Your task to perform on an android device: Do I have any events tomorrow? Image 0: 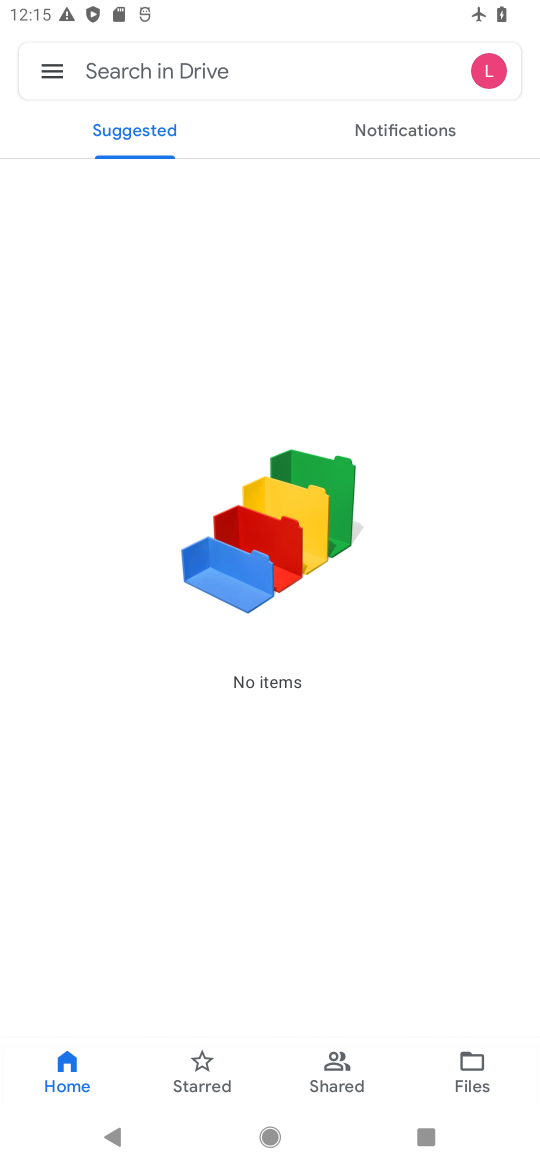
Step 0: press home button
Your task to perform on an android device: Do I have any events tomorrow? Image 1: 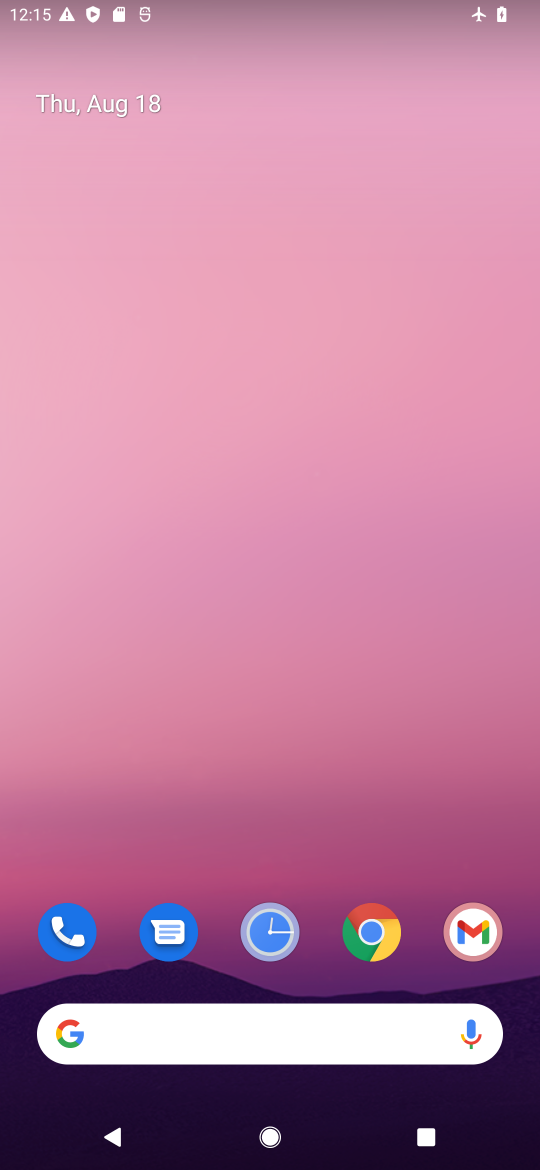
Step 1: drag from (280, 814) to (201, 236)
Your task to perform on an android device: Do I have any events tomorrow? Image 2: 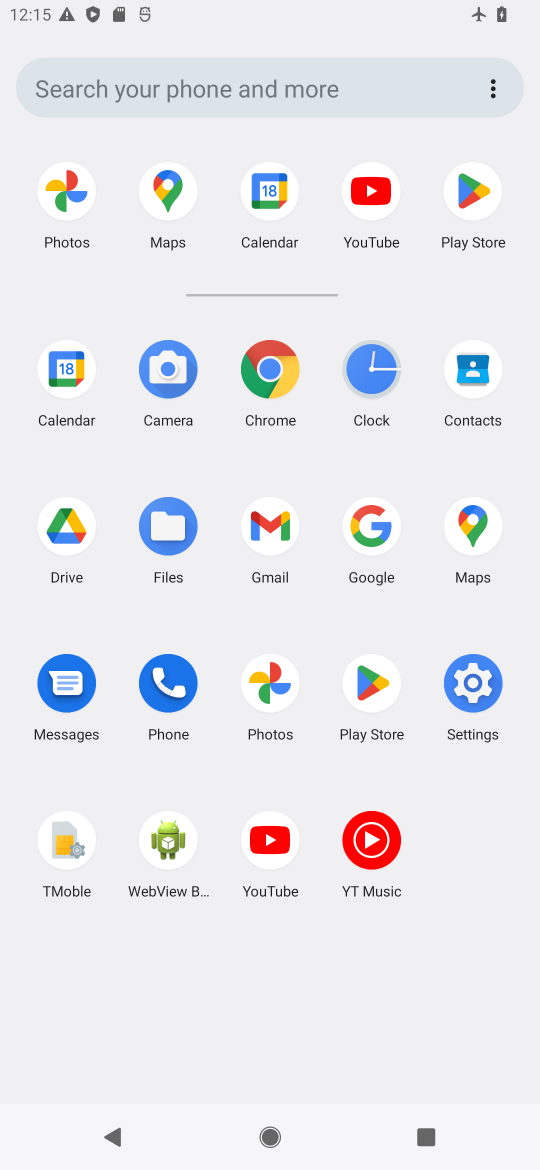
Step 2: click (66, 374)
Your task to perform on an android device: Do I have any events tomorrow? Image 3: 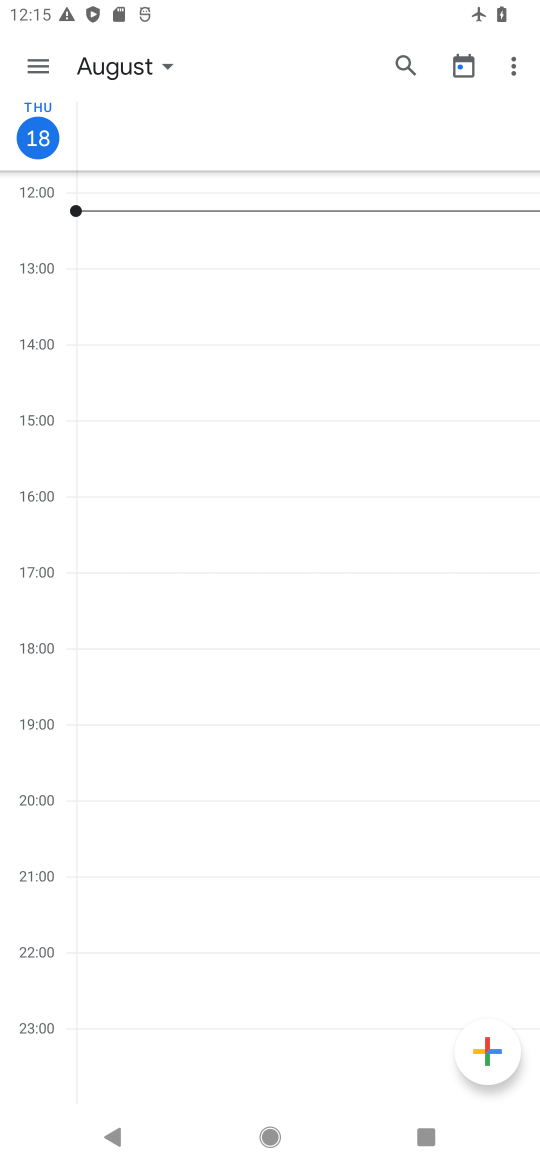
Step 3: click (170, 59)
Your task to perform on an android device: Do I have any events tomorrow? Image 4: 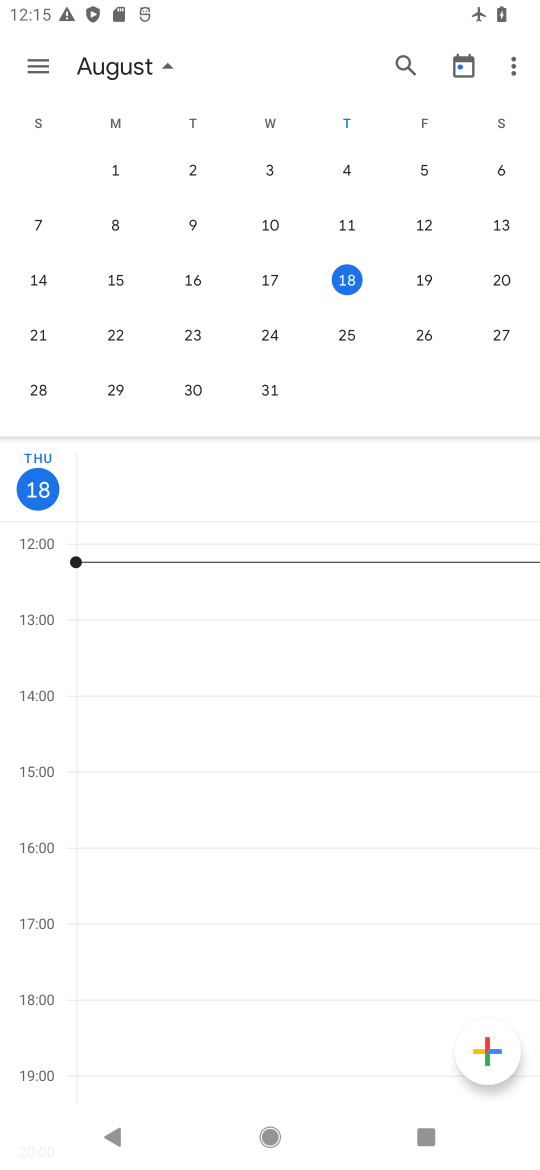
Step 4: click (428, 276)
Your task to perform on an android device: Do I have any events tomorrow? Image 5: 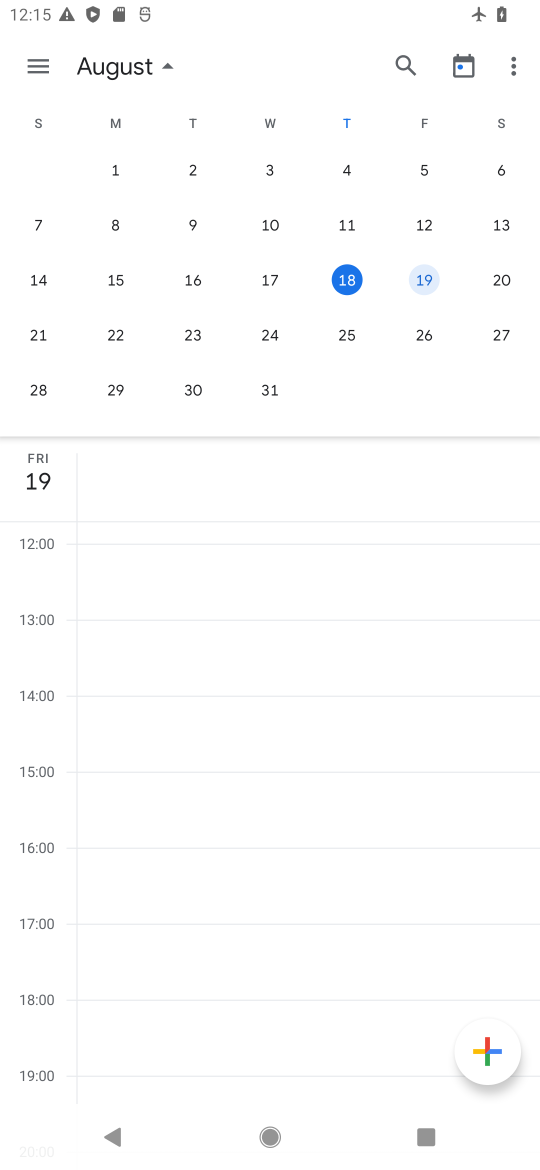
Step 5: task complete